Your task to perform on an android device: Search for Italian restaurants on Maps Image 0: 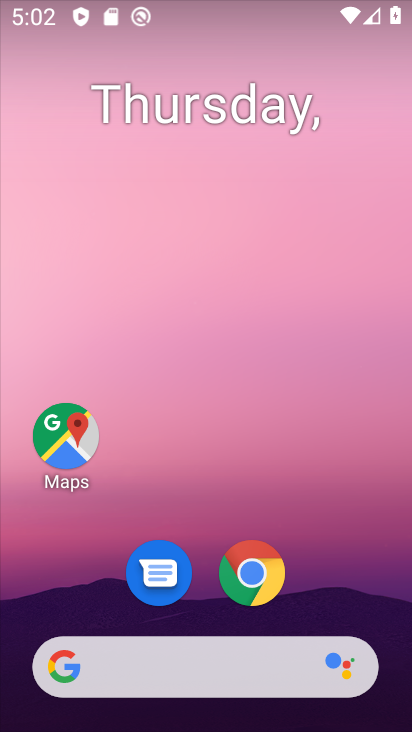
Step 0: drag from (340, 497) to (262, 11)
Your task to perform on an android device: Search for Italian restaurants on Maps Image 1: 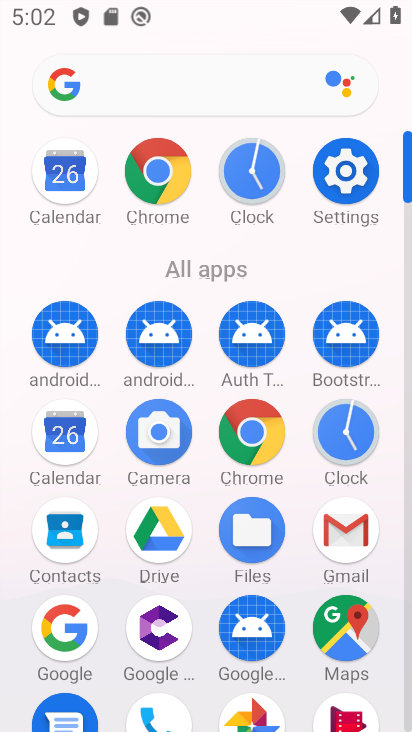
Step 1: drag from (6, 586) to (26, 261)
Your task to perform on an android device: Search for Italian restaurants on Maps Image 2: 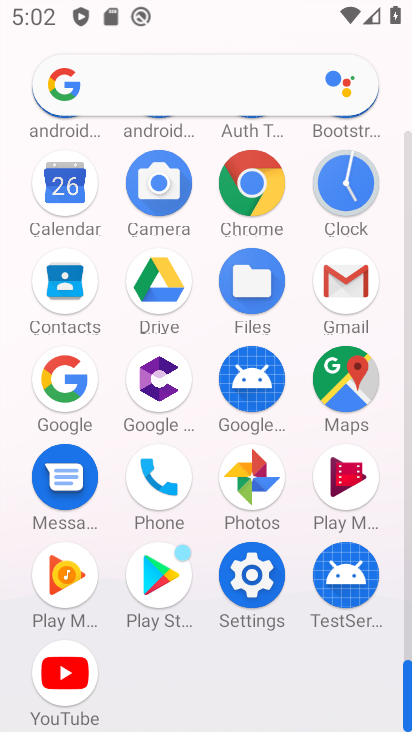
Step 2: click (340, 376)
Your task to perform on an android device: Search for Italian restaurants on Maps Image 3: 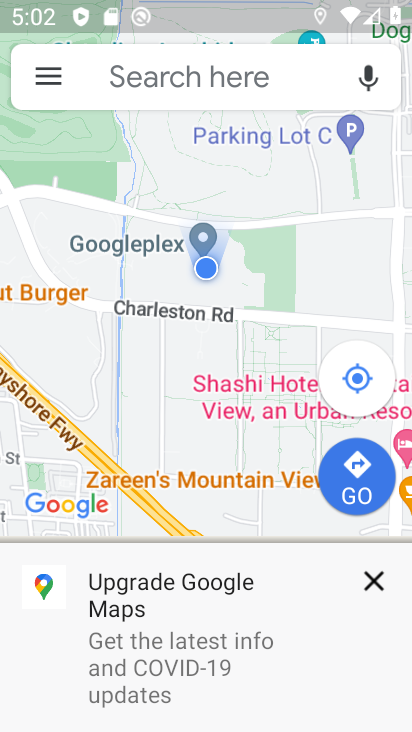
Step 3: click (286, 84)
Your task to perform on an android device: Search for Italian restaurants on Maps Image 4: 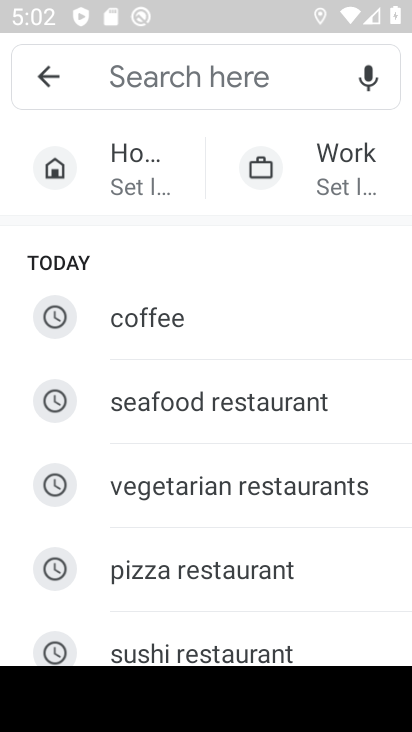
Step 4: drag from (215, 623) to (225, 385)
Your task to perform on an android device: Search for Italian restaurants on Maps Image 5: 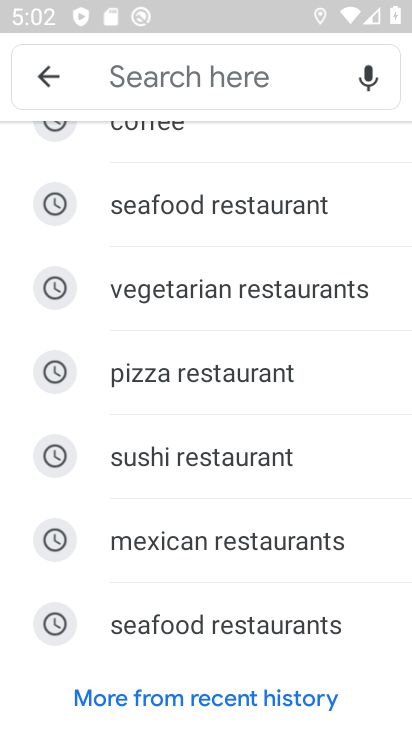
Step 5: click (128, 75)
Your task to perform on an android device: Search for Italian restaurants on Maps Image 6: 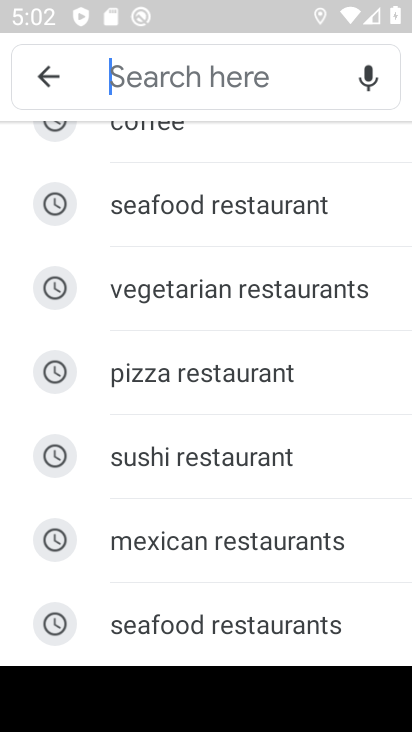
Step 6: type "Italian restaurants"
Your task to perform on an android device: Search for Italian restaurants on Maps Image 7: 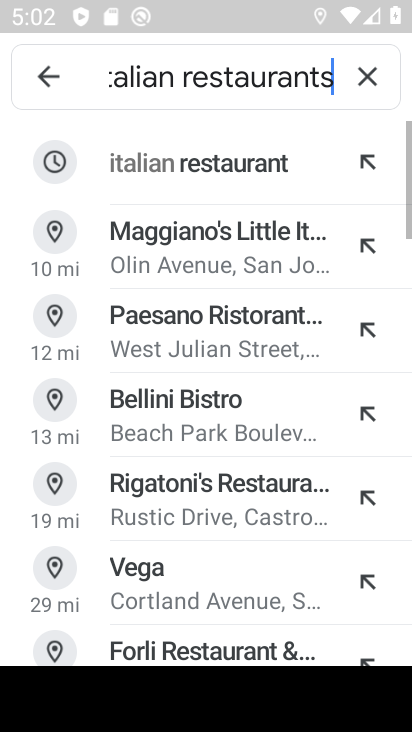
Step 7: click (220, 162)
Your task to perform on an android device: Search for Italian restaurants on Maps Image 8: 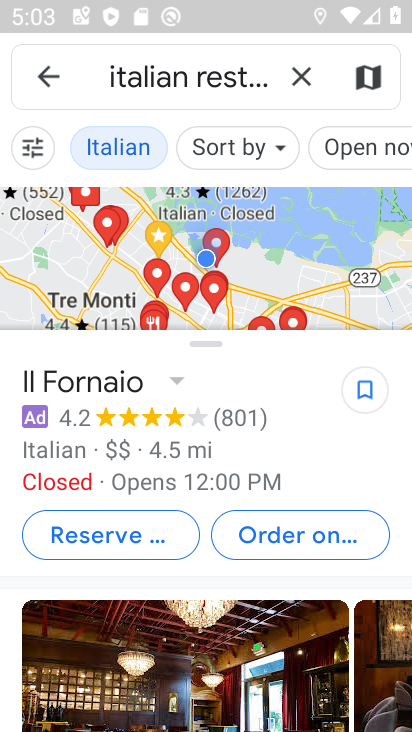
Step 8: task complete